Your task to perform on an android device: uninstall "Google Sheets" Image 0: 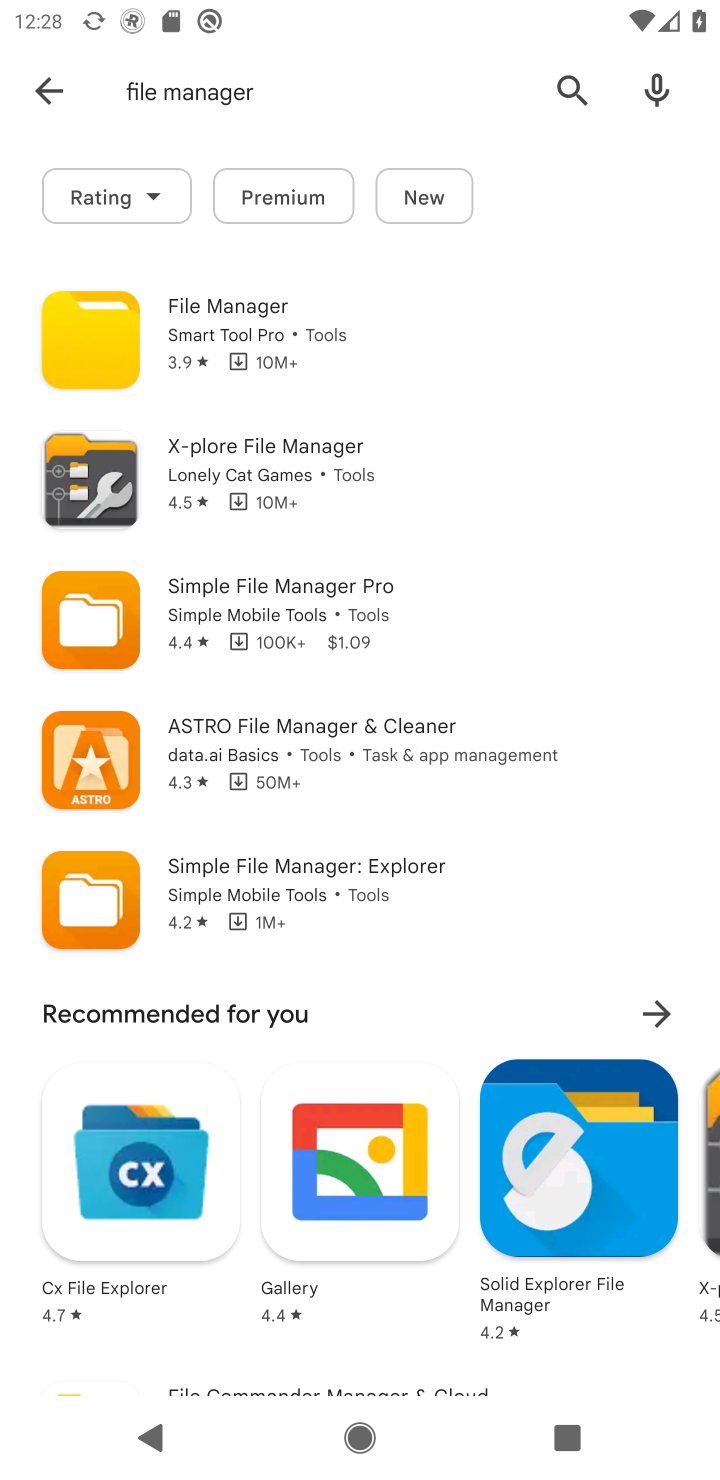
Step 0: press home button
Your task to perform on an android device: uninstall "Google Sheets" Image 1: 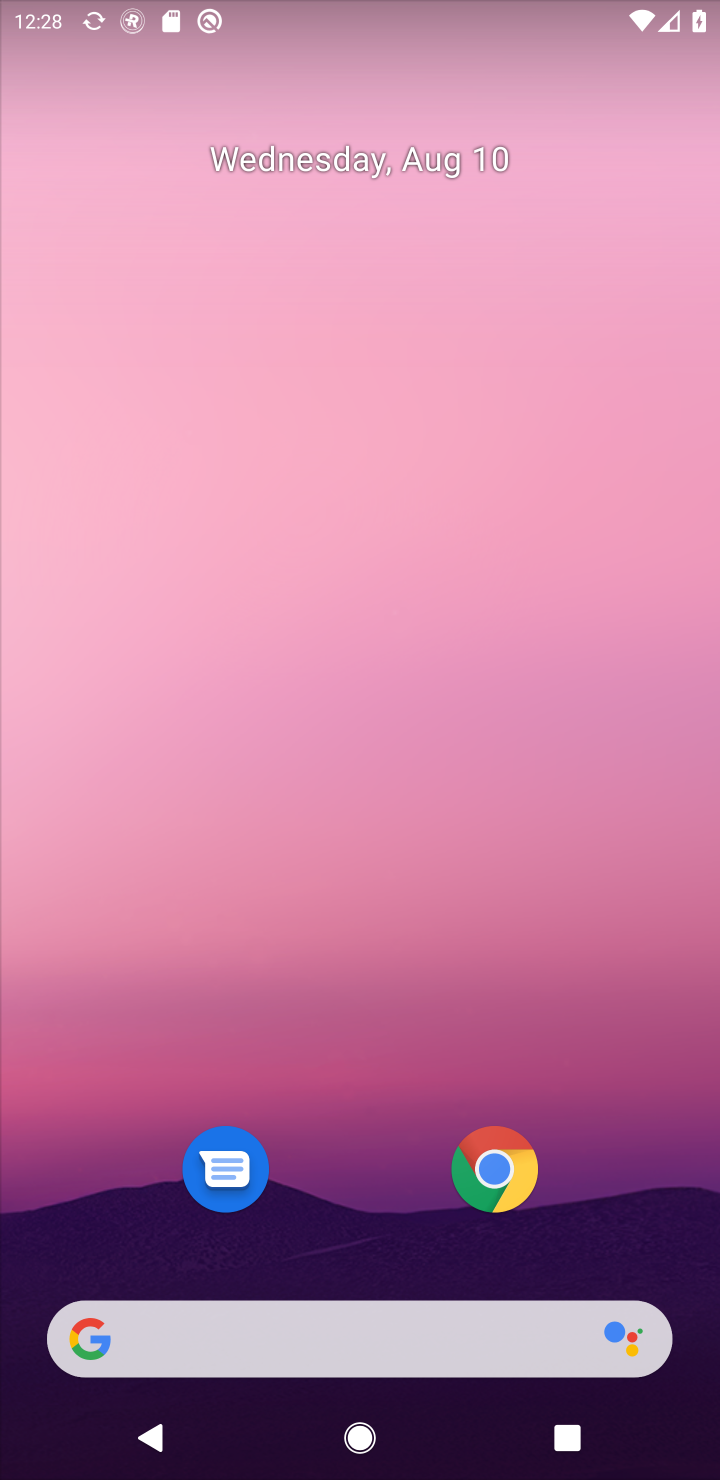
Step 1: drag from (629, 1130) to (635, 58)
Your task to perform on an android device: uninstall "Google Sheets" Image 2: 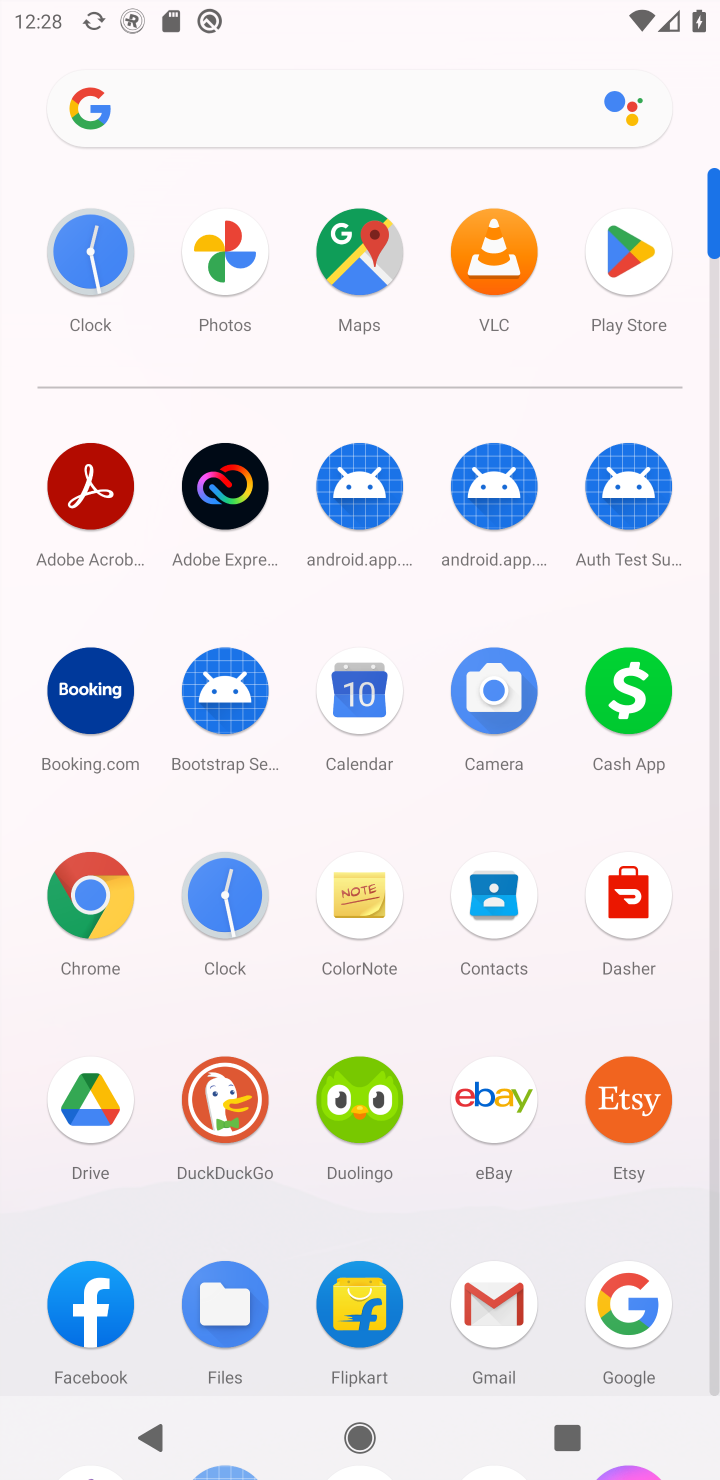
Step 2: click (628, 241)
Your task to perform on an android device: uninstall "Google Sheets" Image 3: 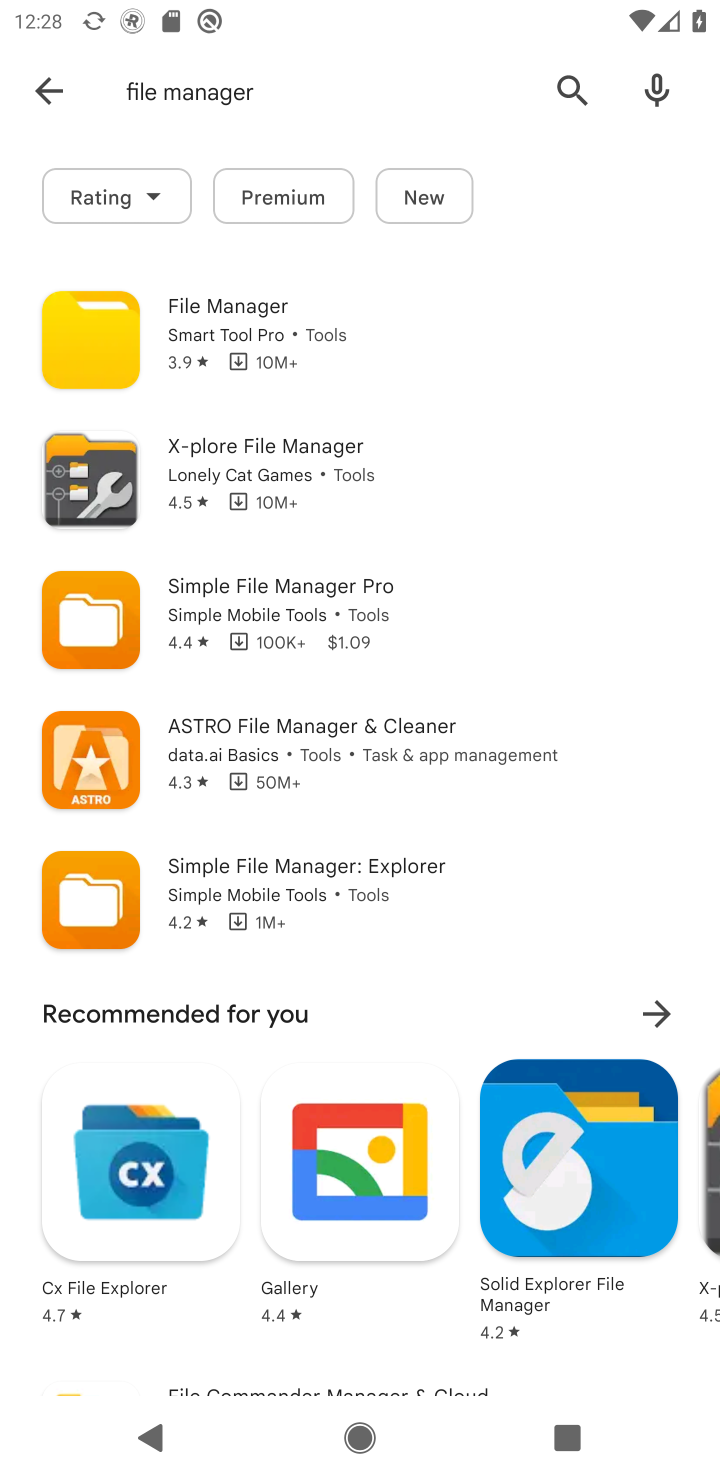
Step 3: click (567, 77)
Your task to perform on an android device: uninstall "Google Sheets" Image 4: 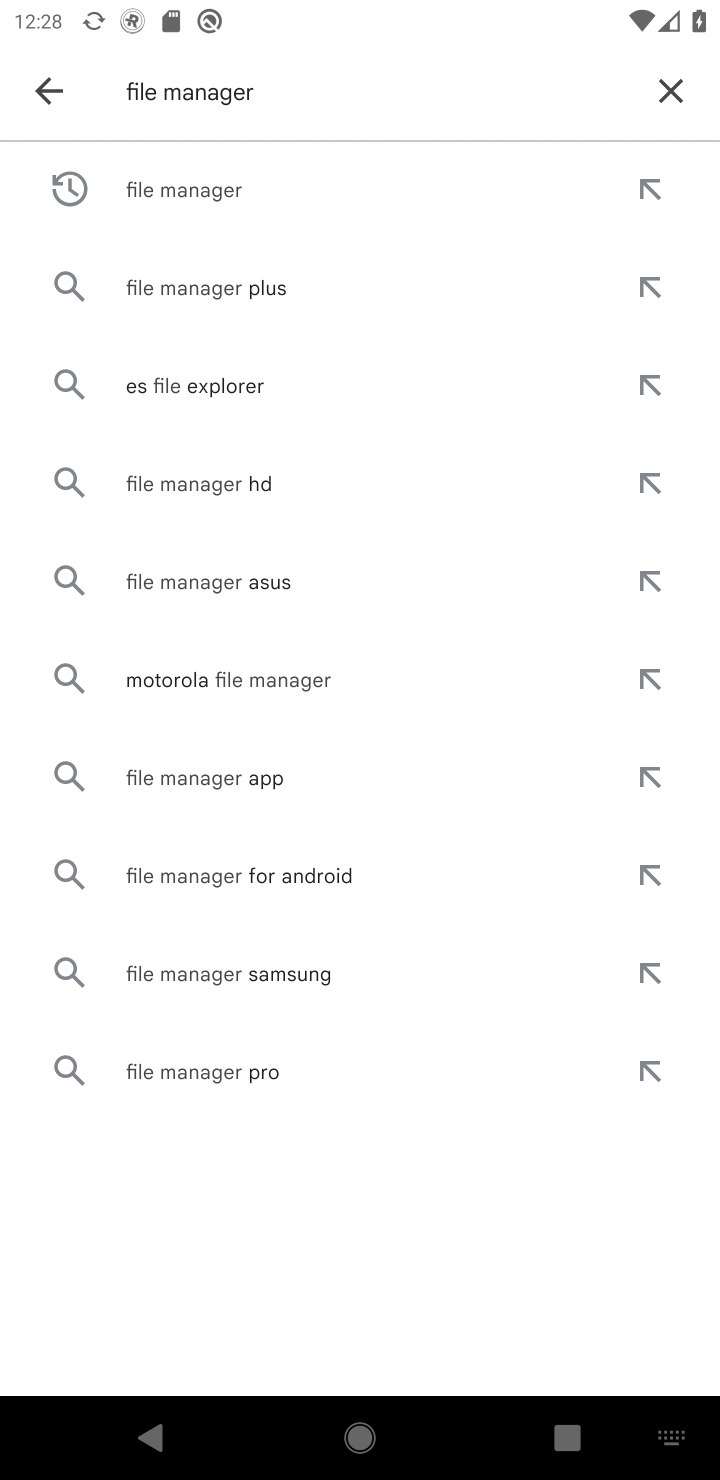
Step 4: click (675, 78)
Your task to perform on an android device: uninstall "Google Sheets" Image 5: 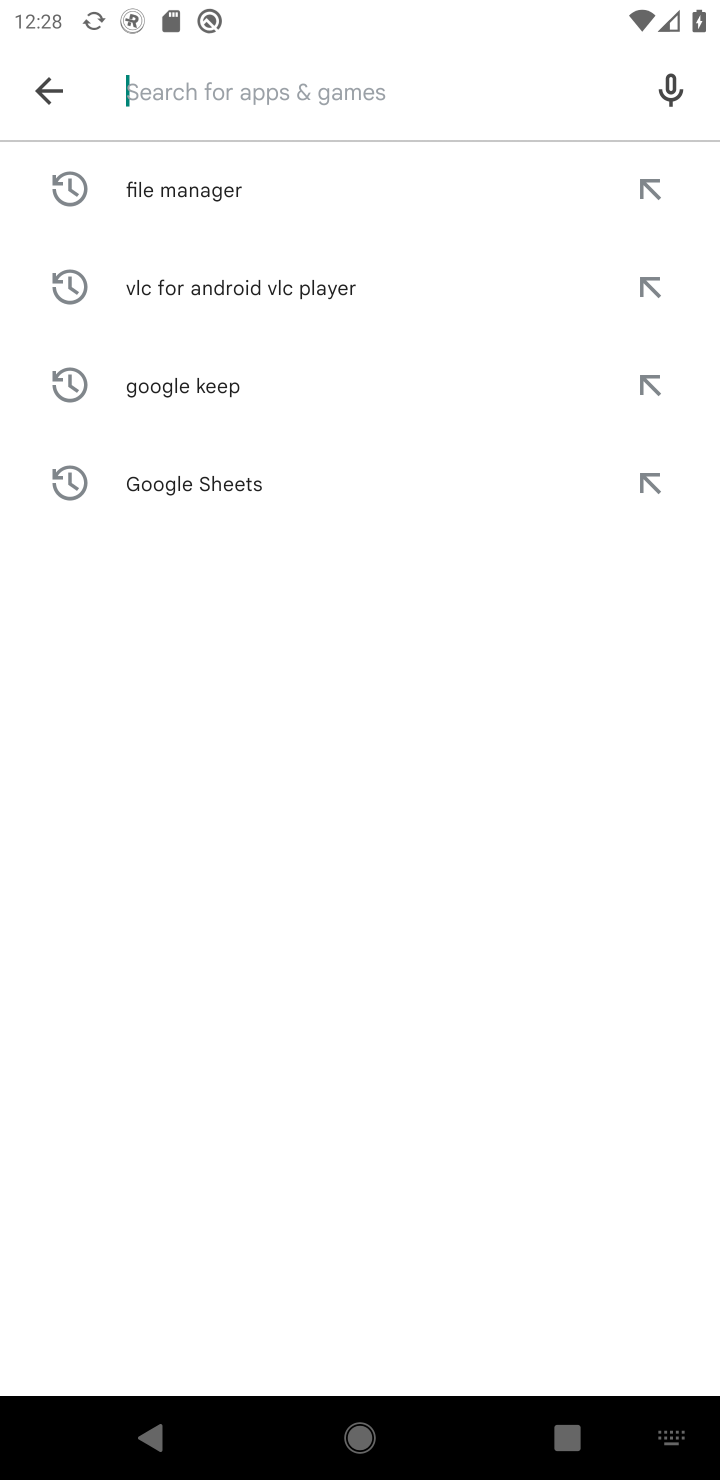
Step 5: press enter
Your task to perform on an android device: uninstall "Google Sheets" Image 6: 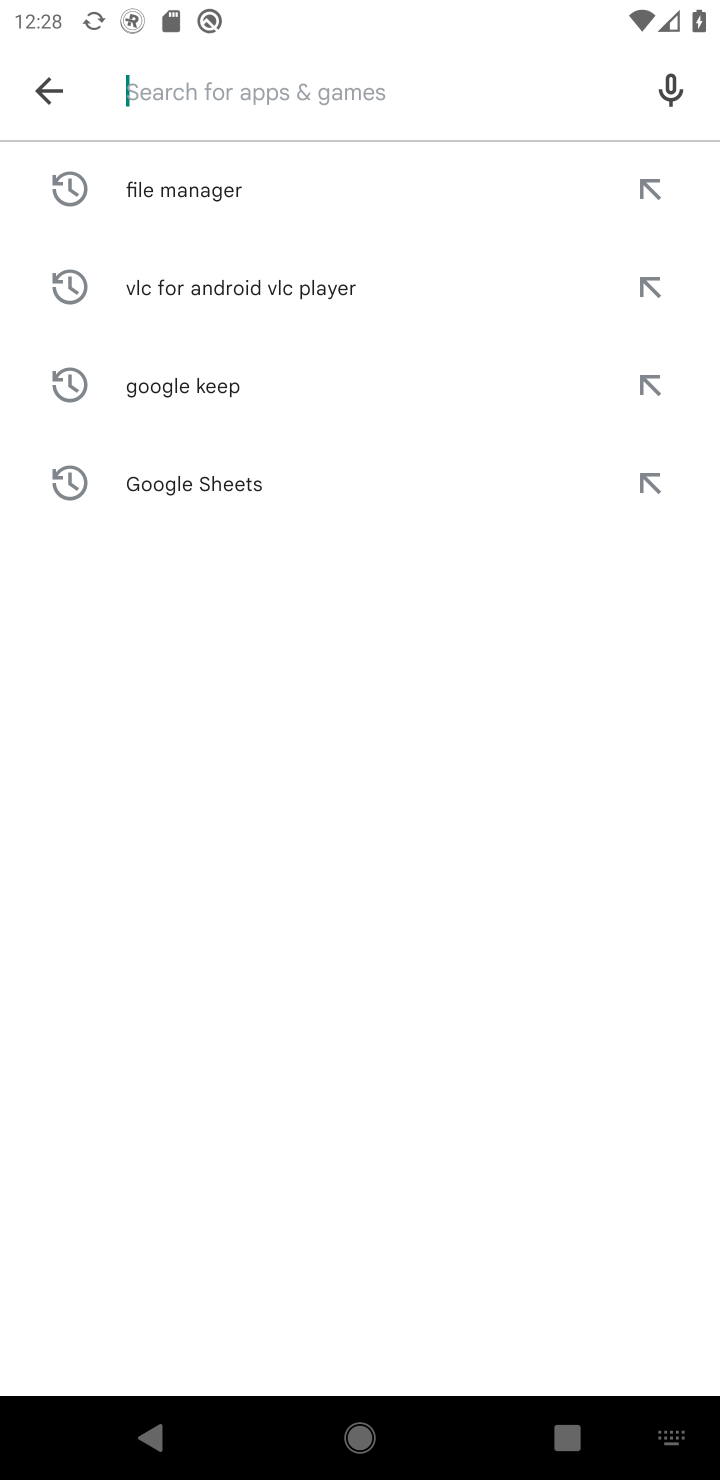
Step 6: type "google sheets"
Your task to perform on an android device: uninstall "Google Sheets" Image 7: 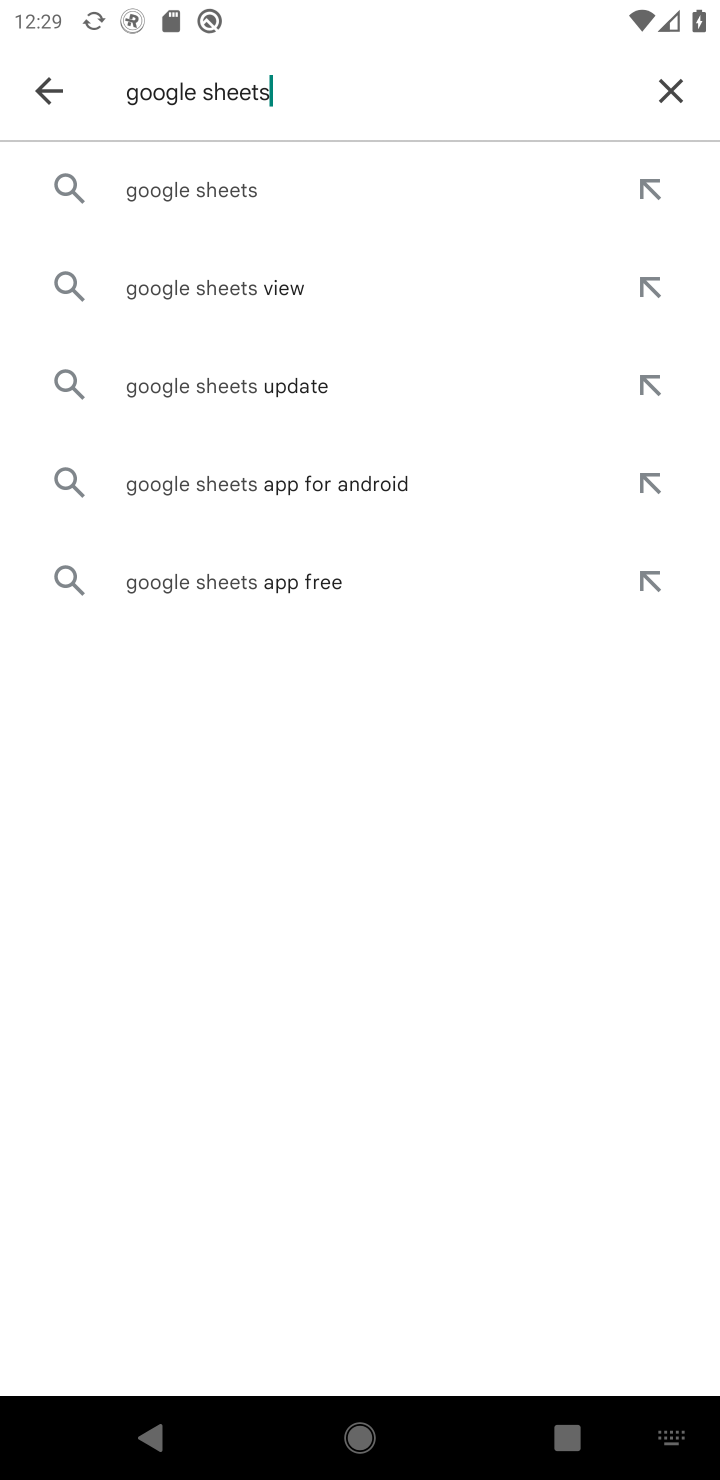
Step 7: click (303, 190)
Your task to perform on an android device: uninstall "Google Sheets" Image 8: 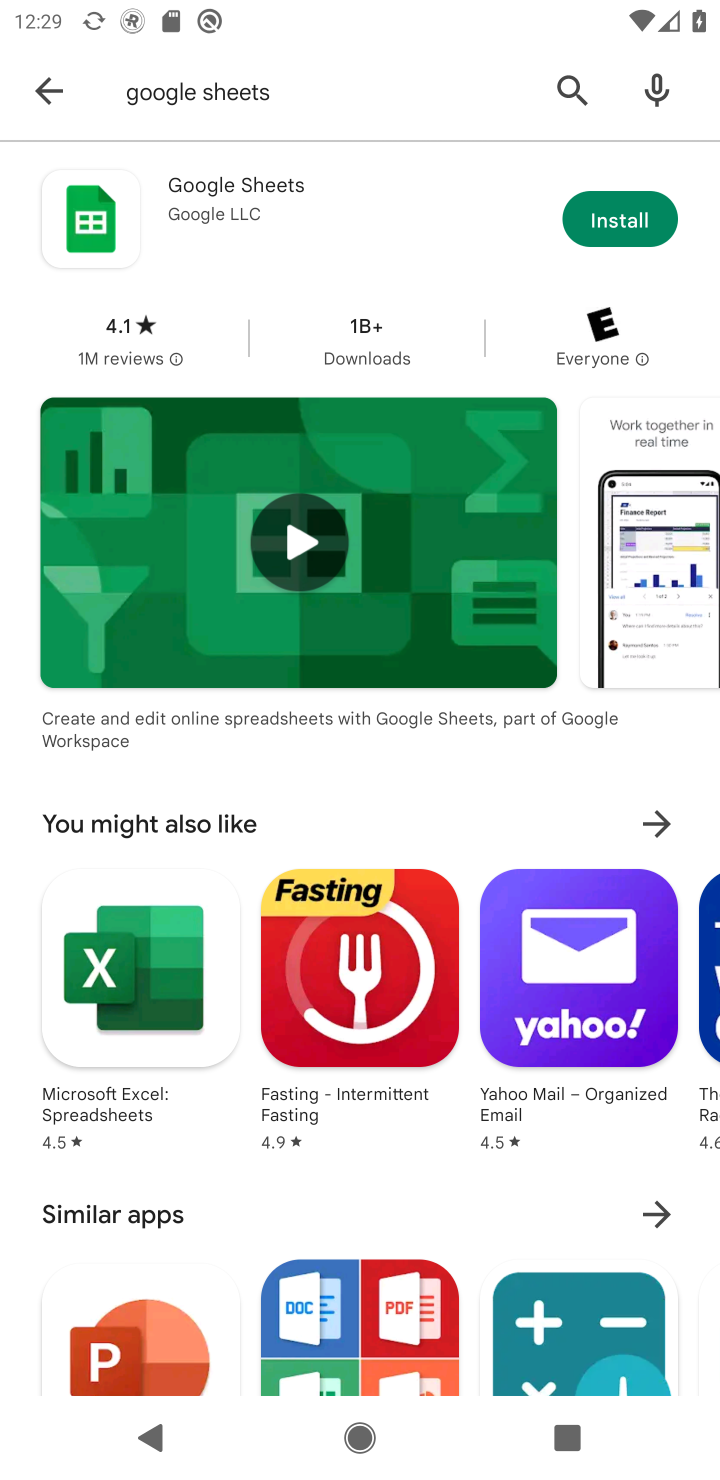
Step 8: task complete